Your task to perform on an android device: turn on improve location accuracy Image 0: 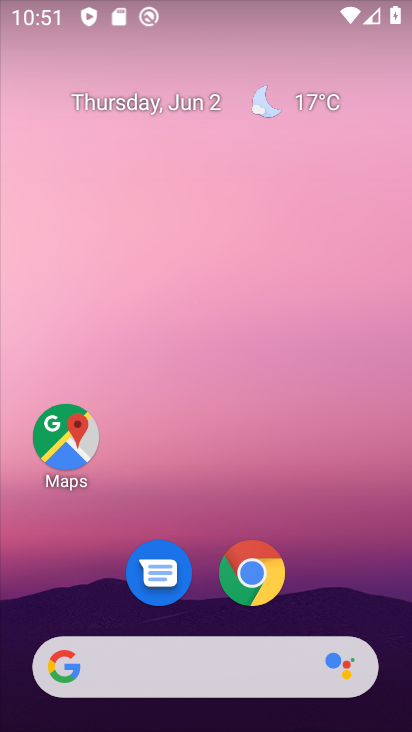
Step 0: task complete